Your task to perform on an android device: find photos in the google photos app Image 0: 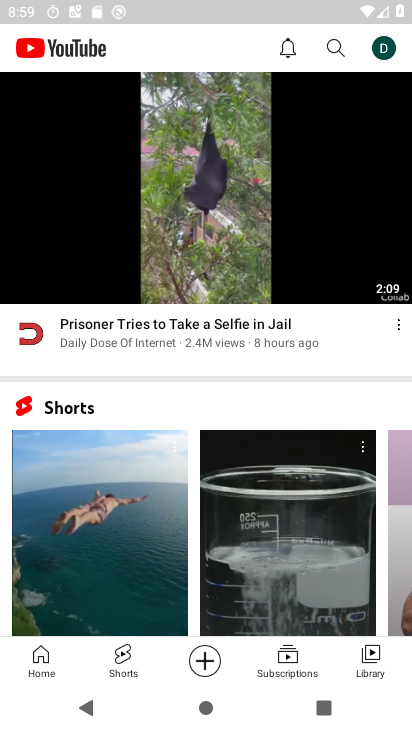
Step 0: press home button
Your task to perform on an android device: find photos in the google photos app Image 1: 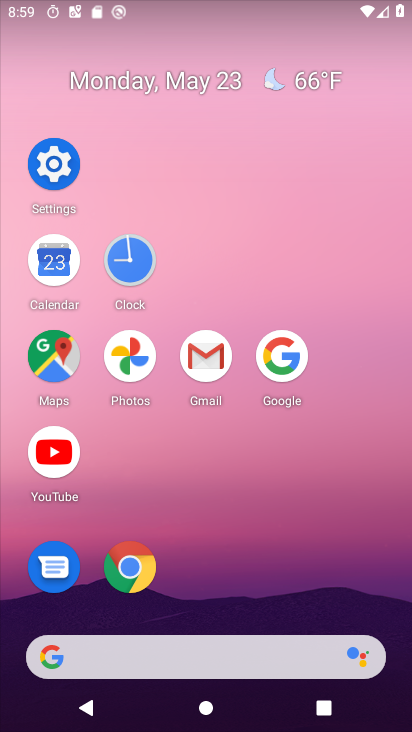
Step 1: click (125, 383)
Your task to perform on an android device: find photos in the google photos app Image 2: 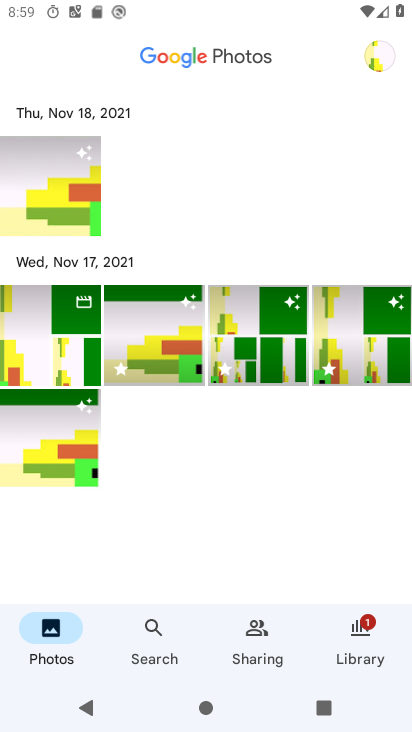
Step 2: task complete